Your task to perform on an android device: uninstall "Facebook Messenger" Image 0: 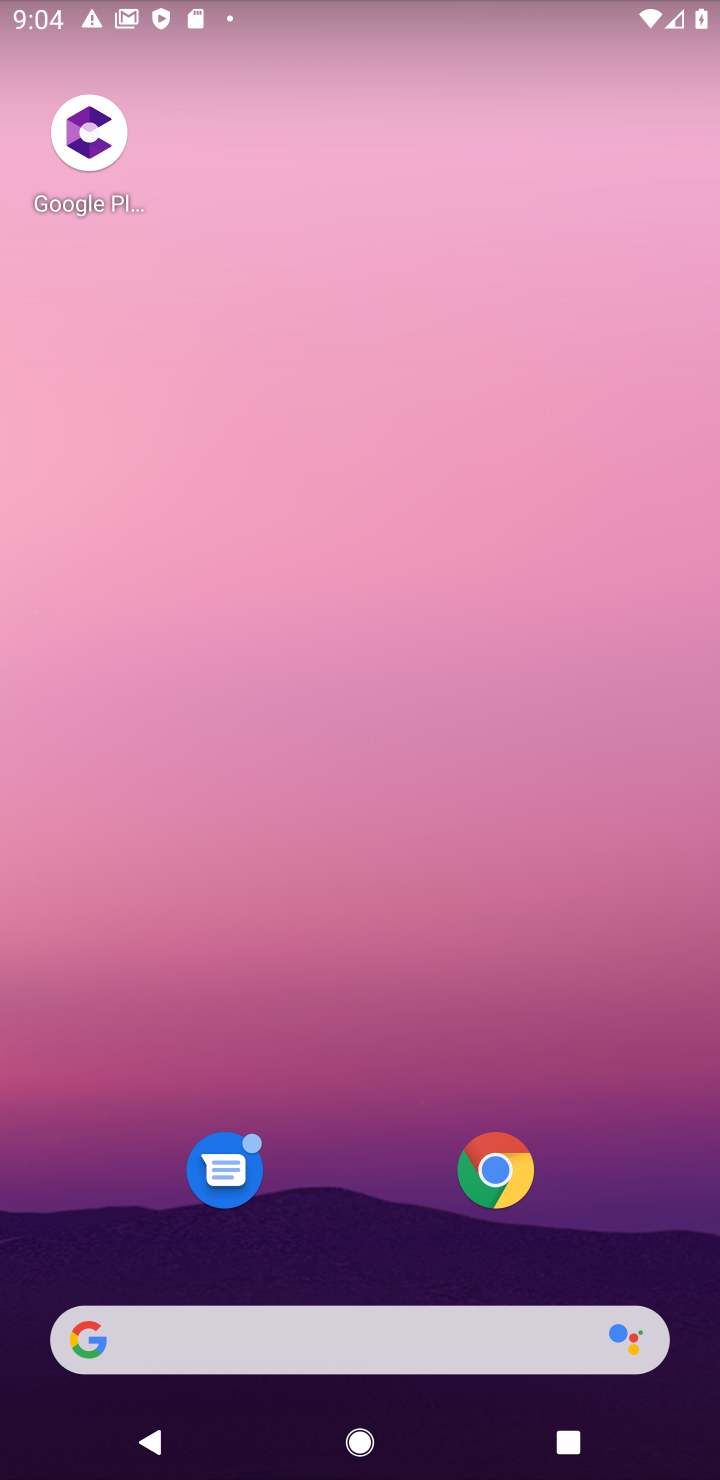
Step 0: drag from (376, 1243) to (451, 165)
Your task to perform on an android device: uninstall "Facebook Messenger" Image 1: 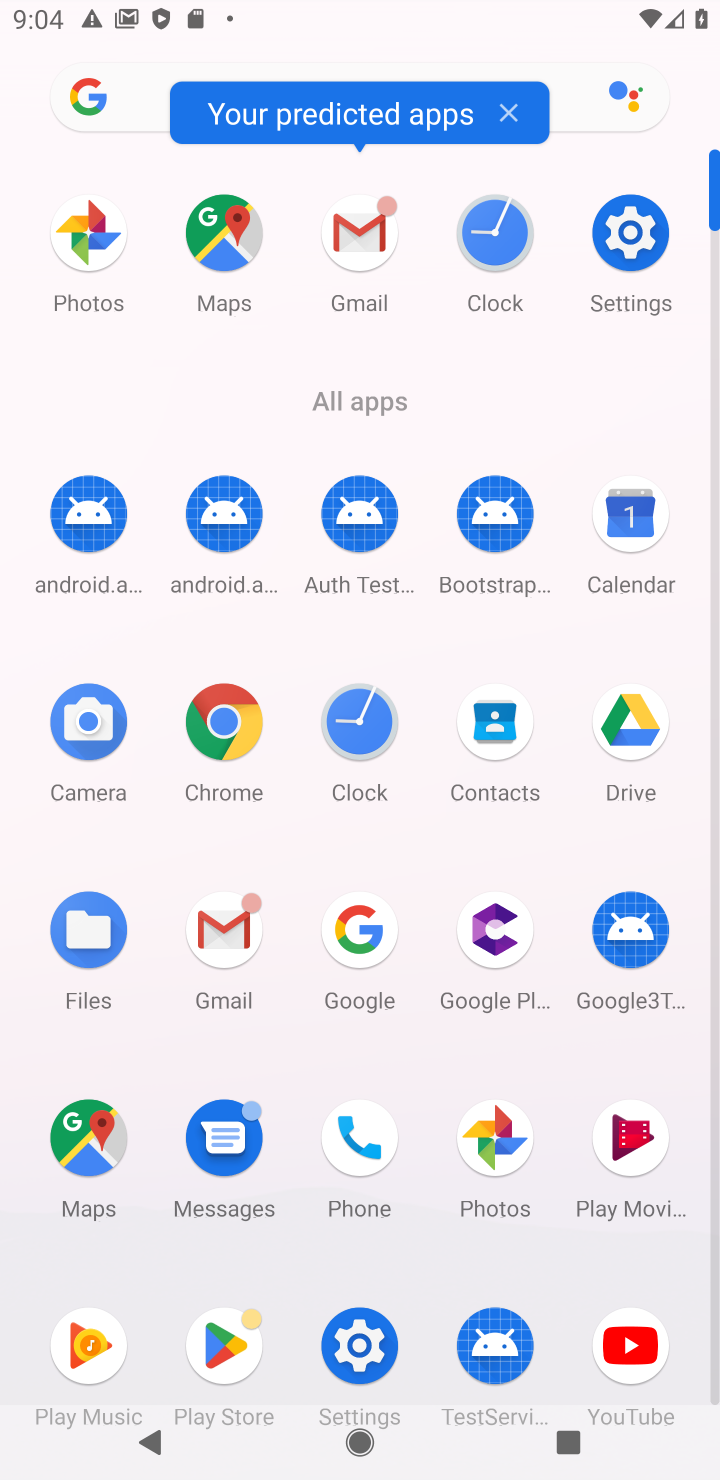
Step 1: drag from (218, 989) to (128, 335)
Your task to perform on an android device: uninstall "Facebook Messenger" Image 2: 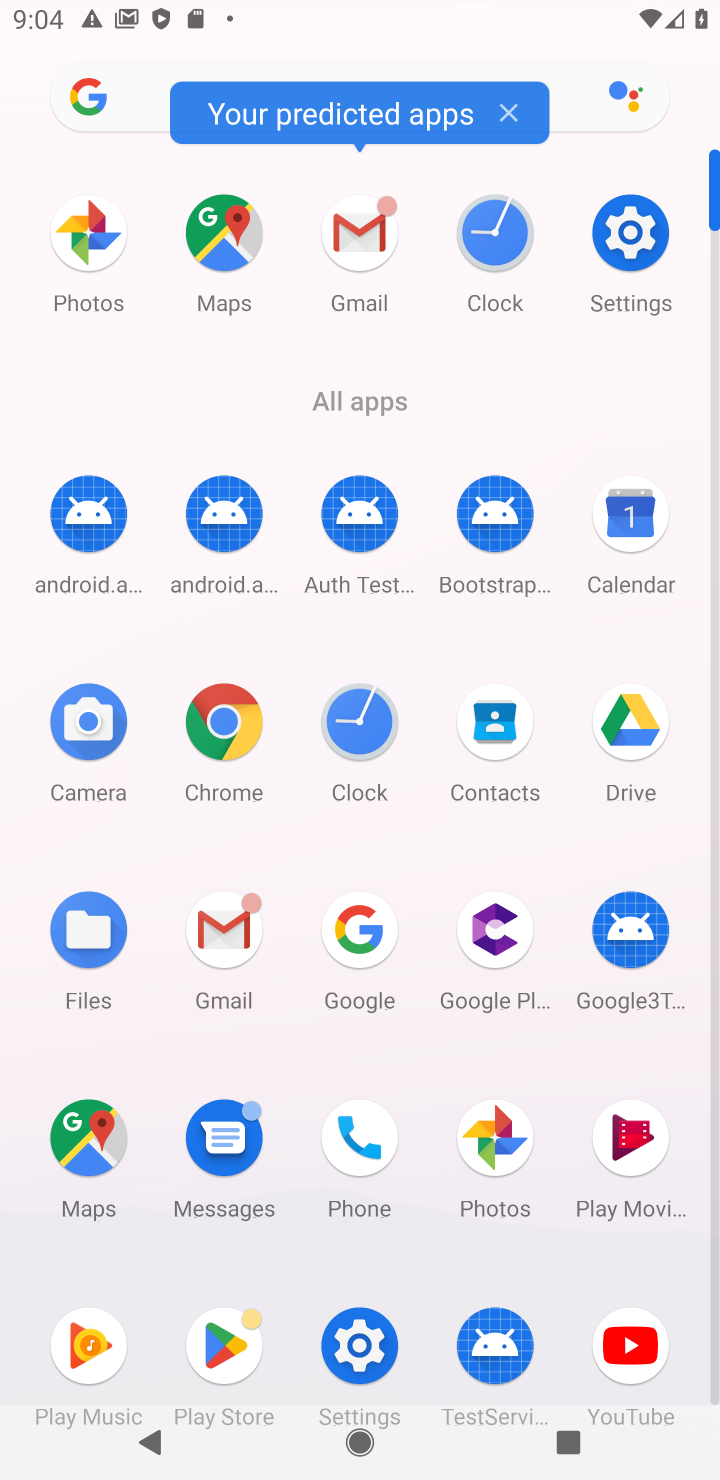
Step 2: drag from (275, 285) to (275, 138)
Your task to perform on an android device: uninstall "Facebook Messenger" Image 3: 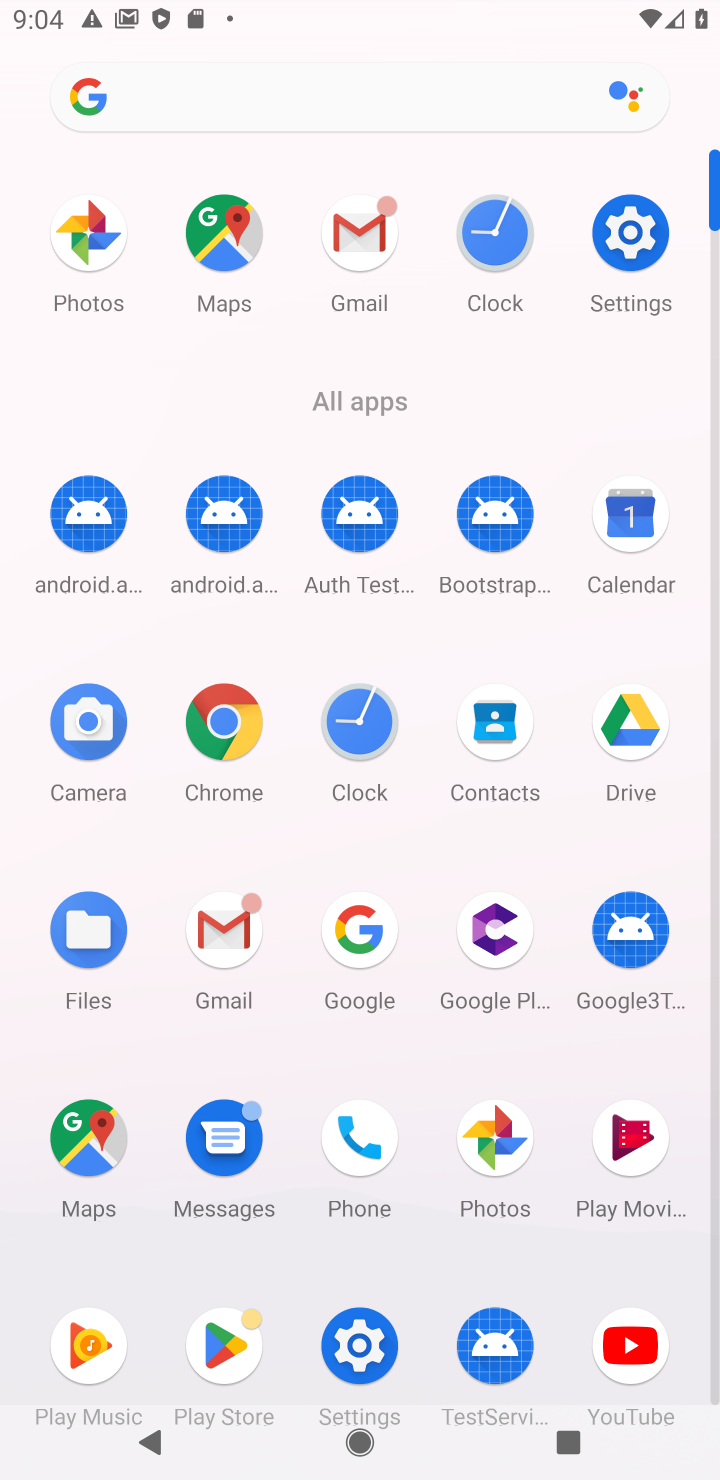
Step 3: click (226, 1337)
Your task to perform on an android device: uninstall "Facebook Messenger" Image 4: 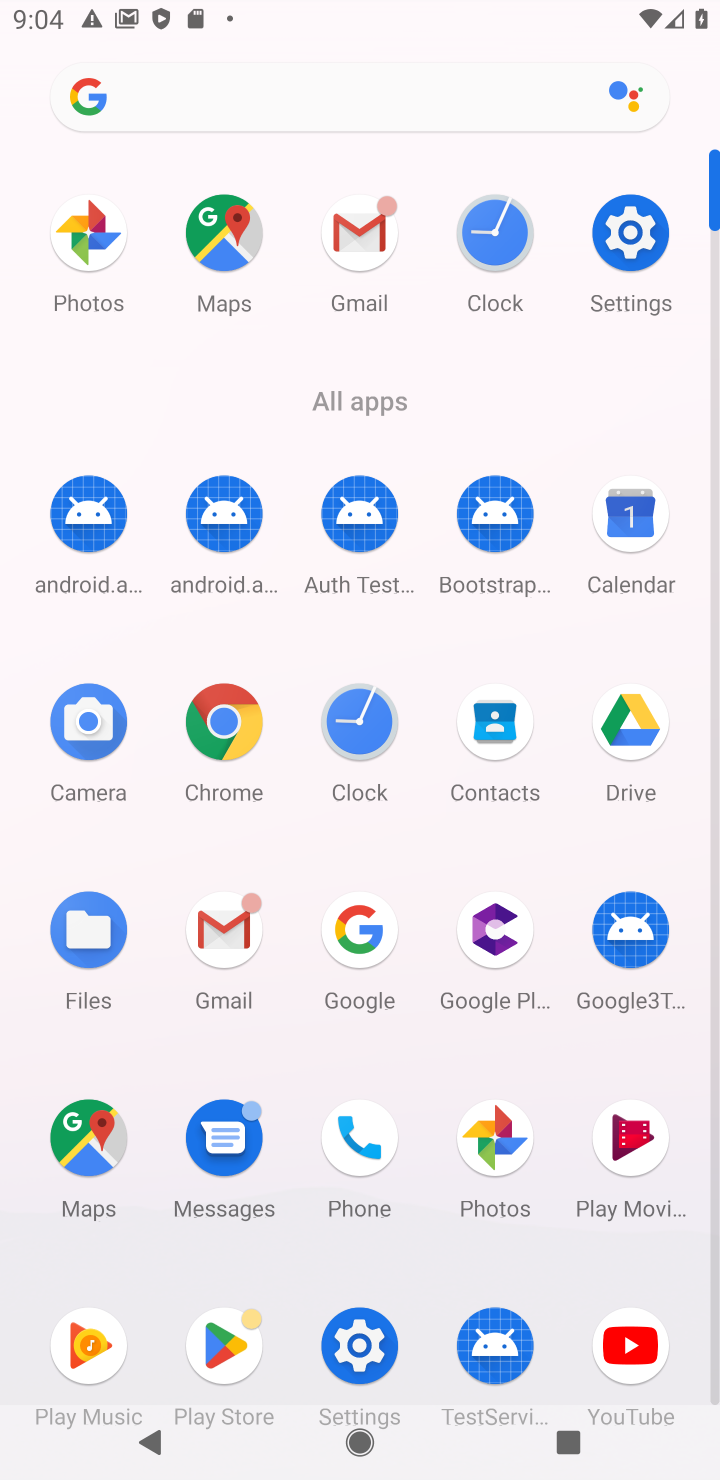
Step 4: click (228, 1343)
Your task to perform on an android device: uninstall "Facebook Messenger" Image 5: 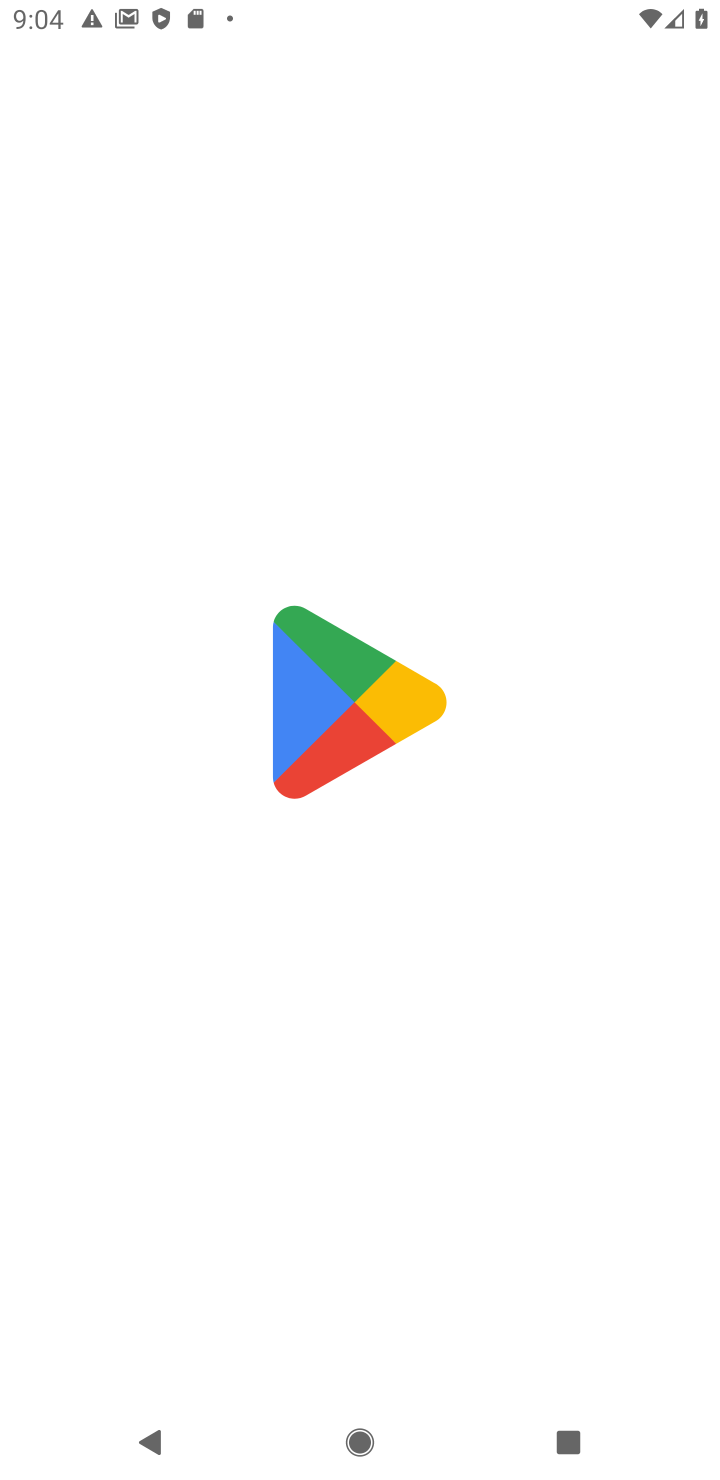
Step 5: click (235, 1342)
Your task to perform on an android device: uninstall "Facebook Messenger" Image 6: 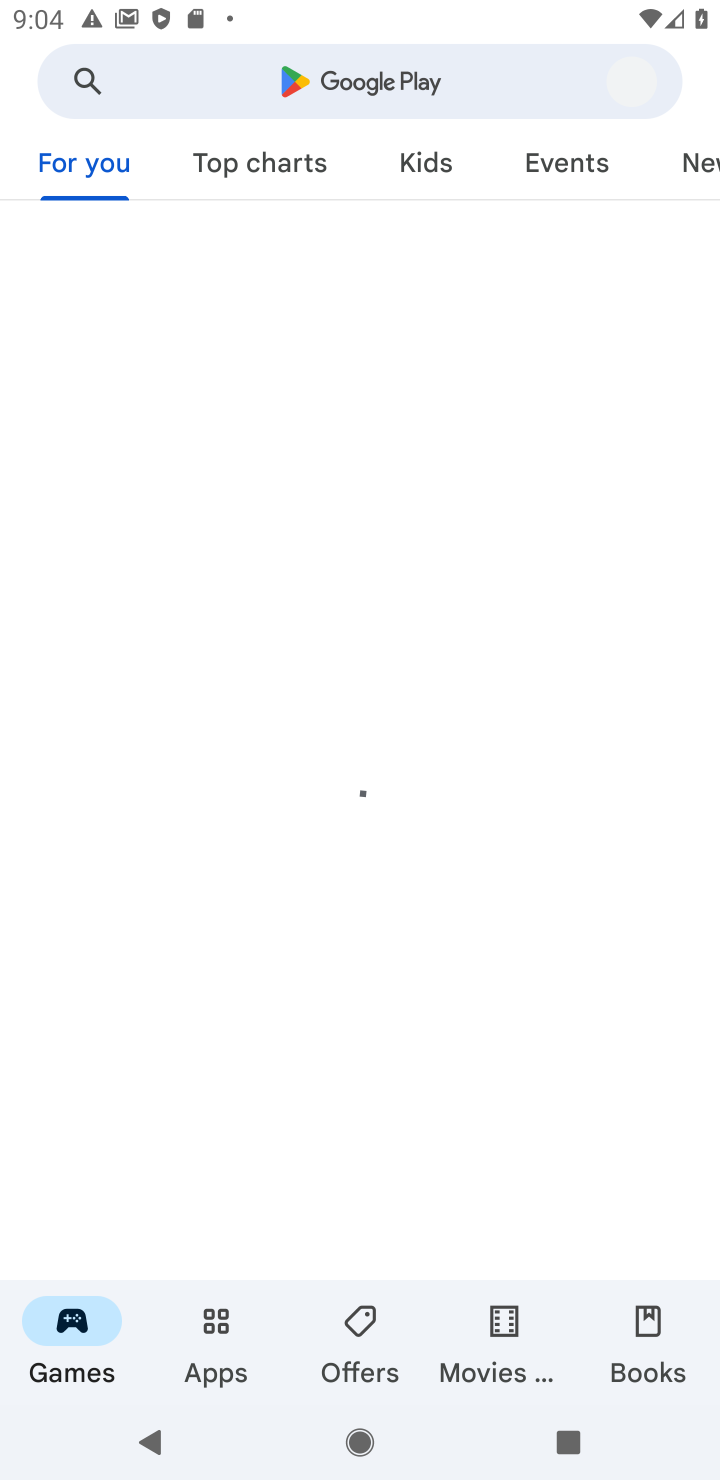
Step 6: click (341, 64)
Your task to perform on an android device: uninstall "Facebook Messenger" Image 7: 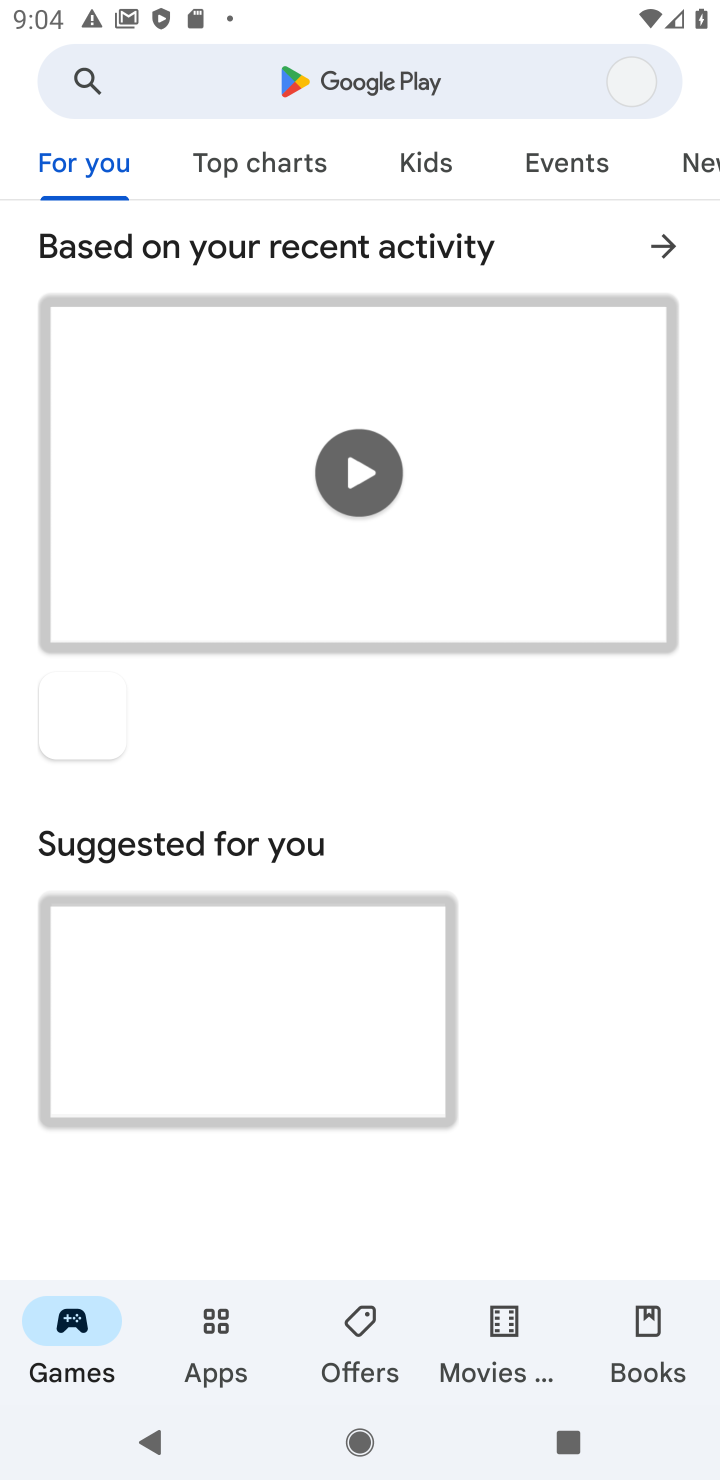
Step 7: click (345, 70)
Your task to perform on an android device: uninstall "Facebook Messenger" Image 8: 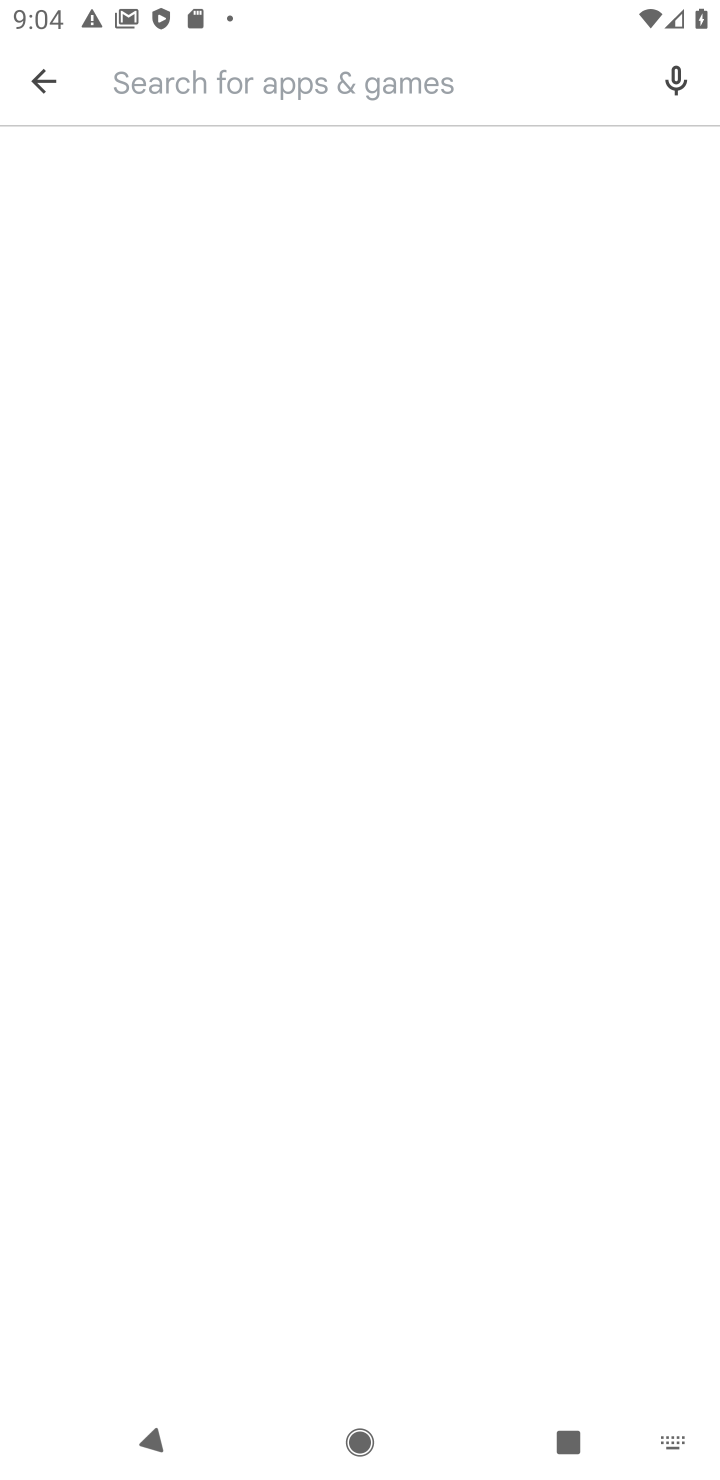
Step 8: click (241, 64)
Your task to perform on an android device: uninstall "Facebook Messenger" Image 9: 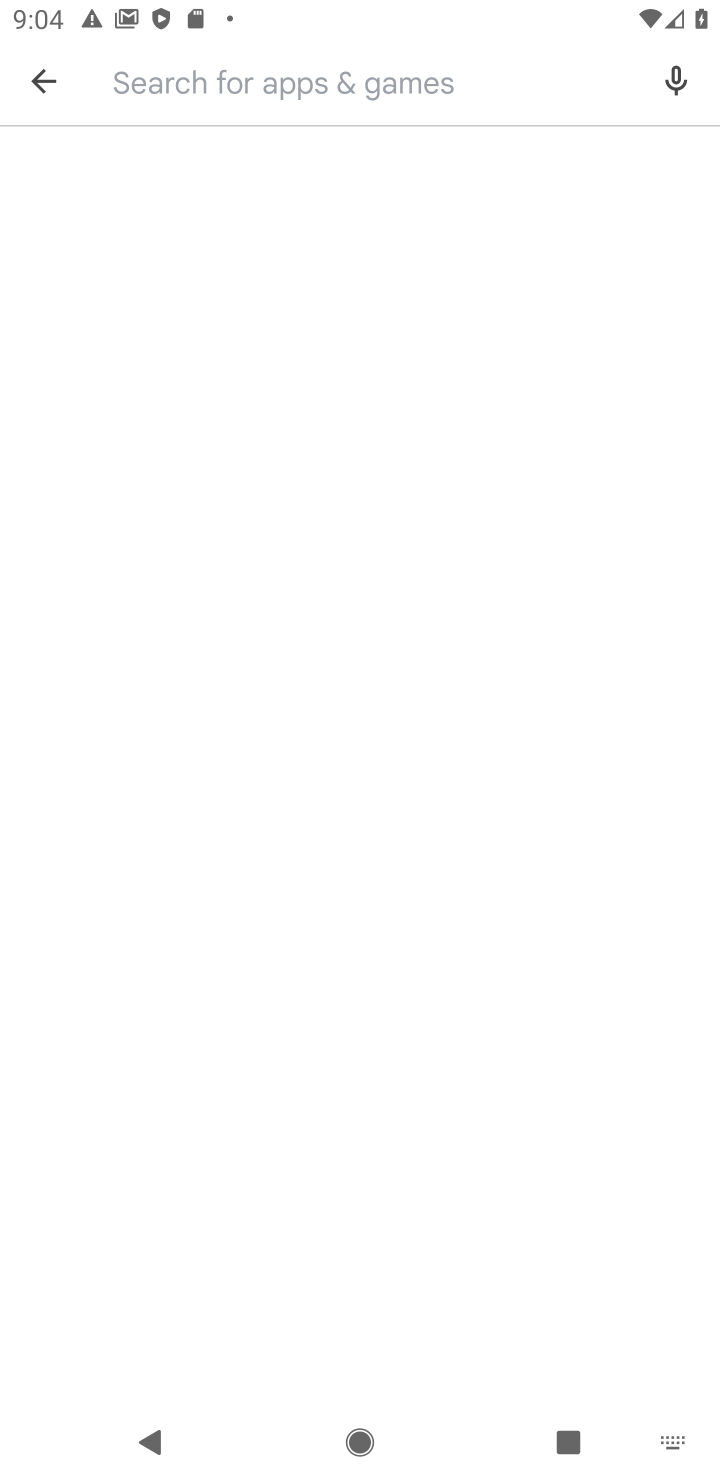
Step 9: click (241, 64)
Your task to perform on an android device: uninstall "Facebook Messenger" Image 10: 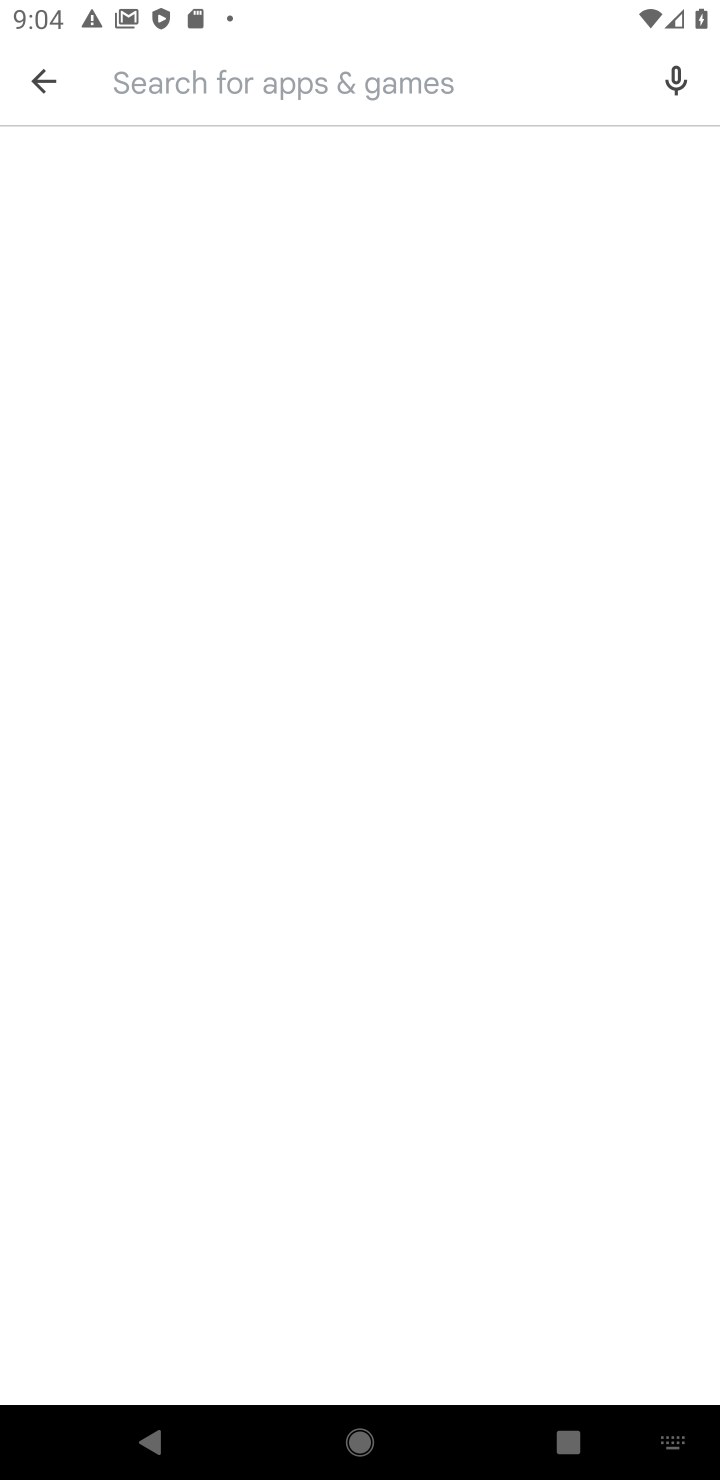
Step 10: type "facebook messenger"
Your task to perform on an android device: uninstall "Facebook Messenger" Image 11: 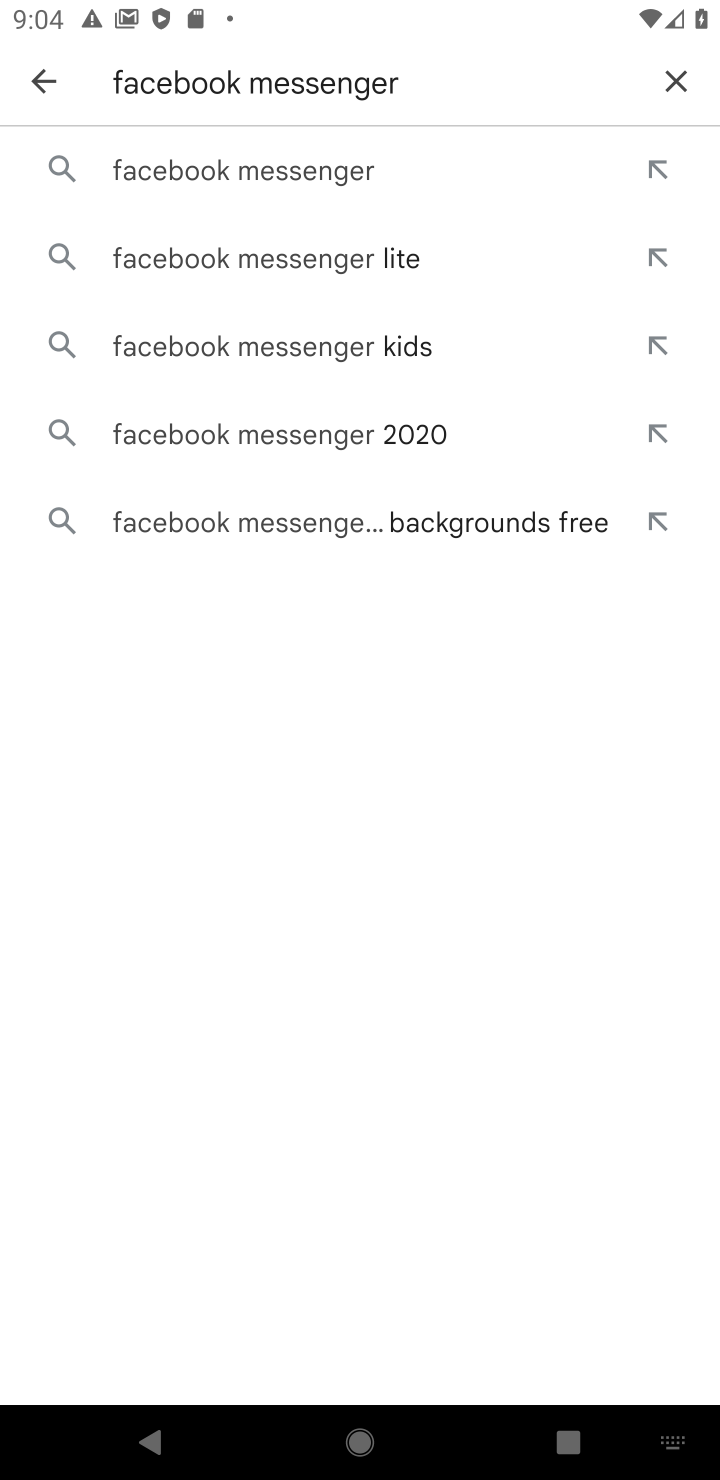
Step 11: click (240, 184)
Your task to perform on an android device: uninstall "Facebook Messenger" Image 12: 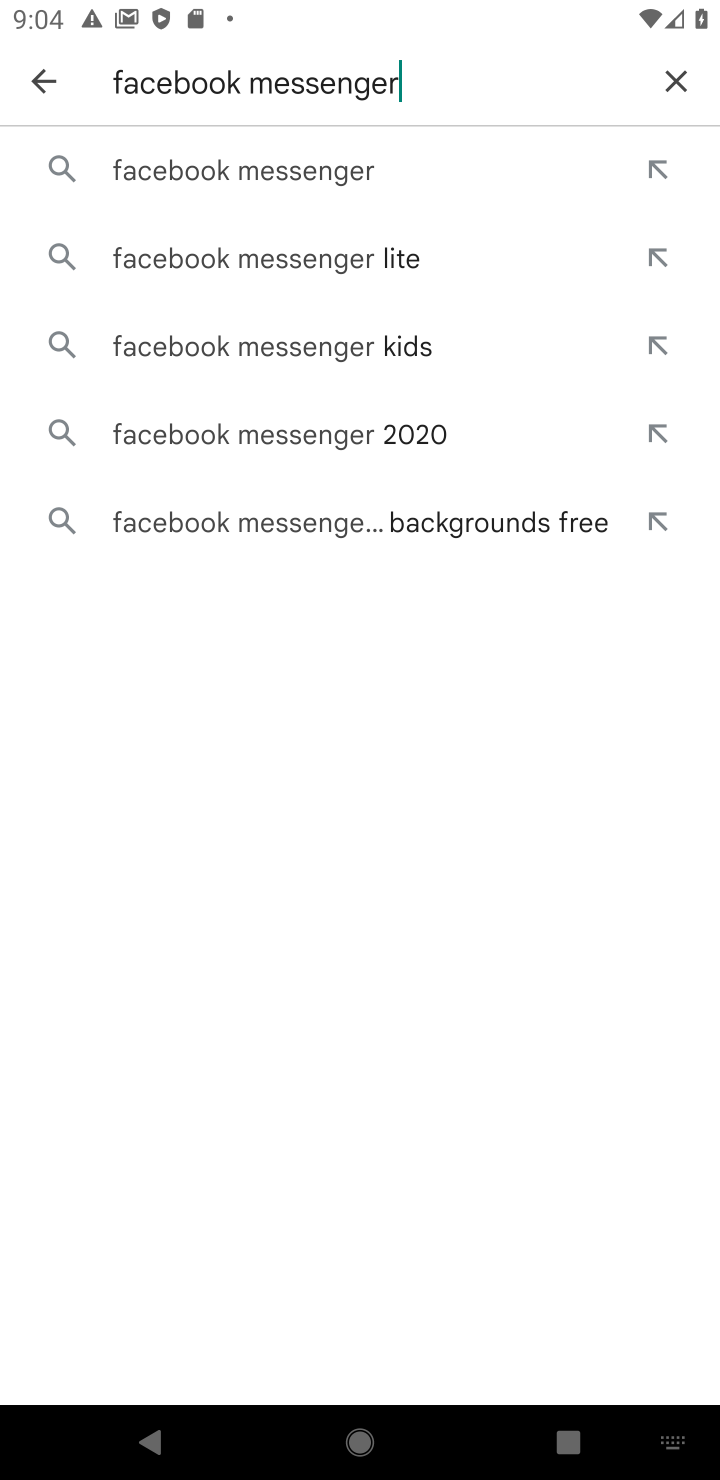
Step 12: click (271, 171)
Your task to perform on an android device: uninstall "Facebook Messenger" Image 13: 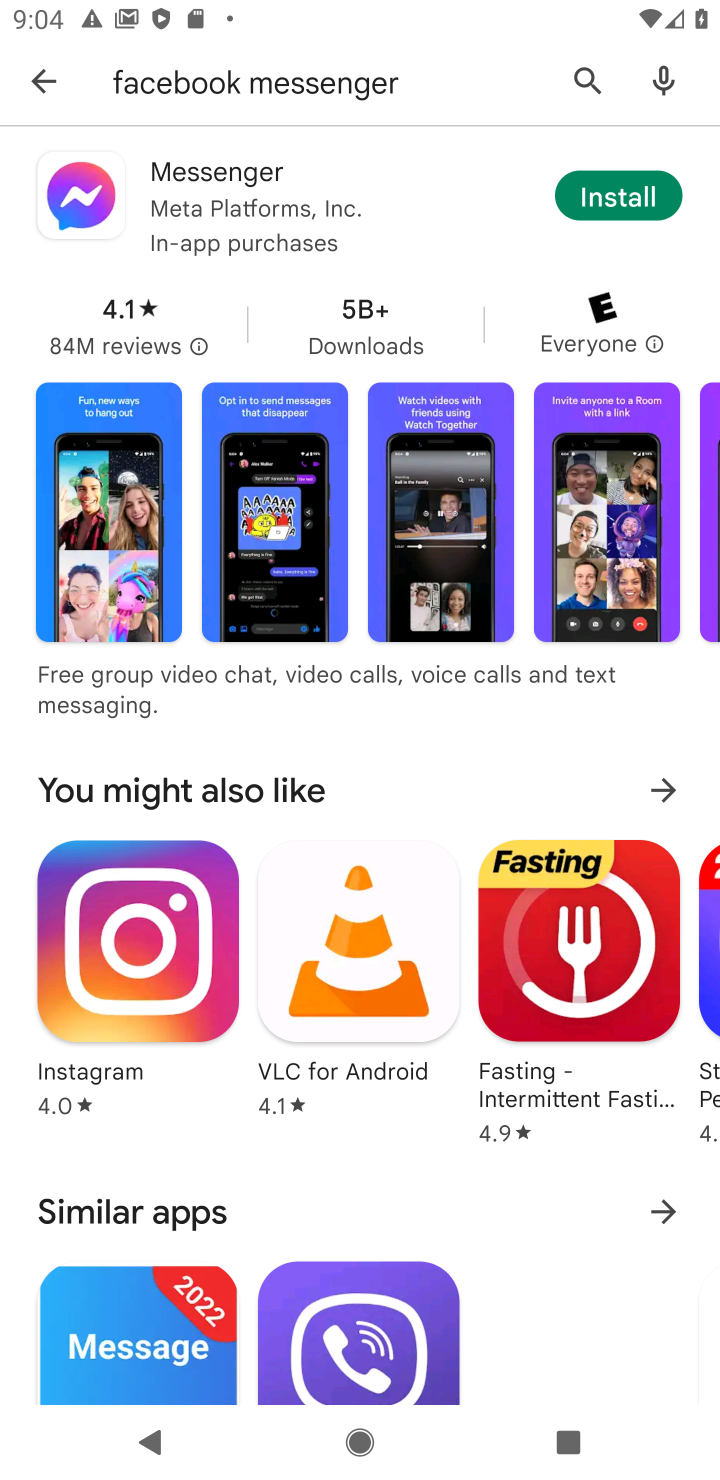
Step 13: click (587, 202)
Your task to perform on an android device: uninstall "Facebook Messenger" Image 14: 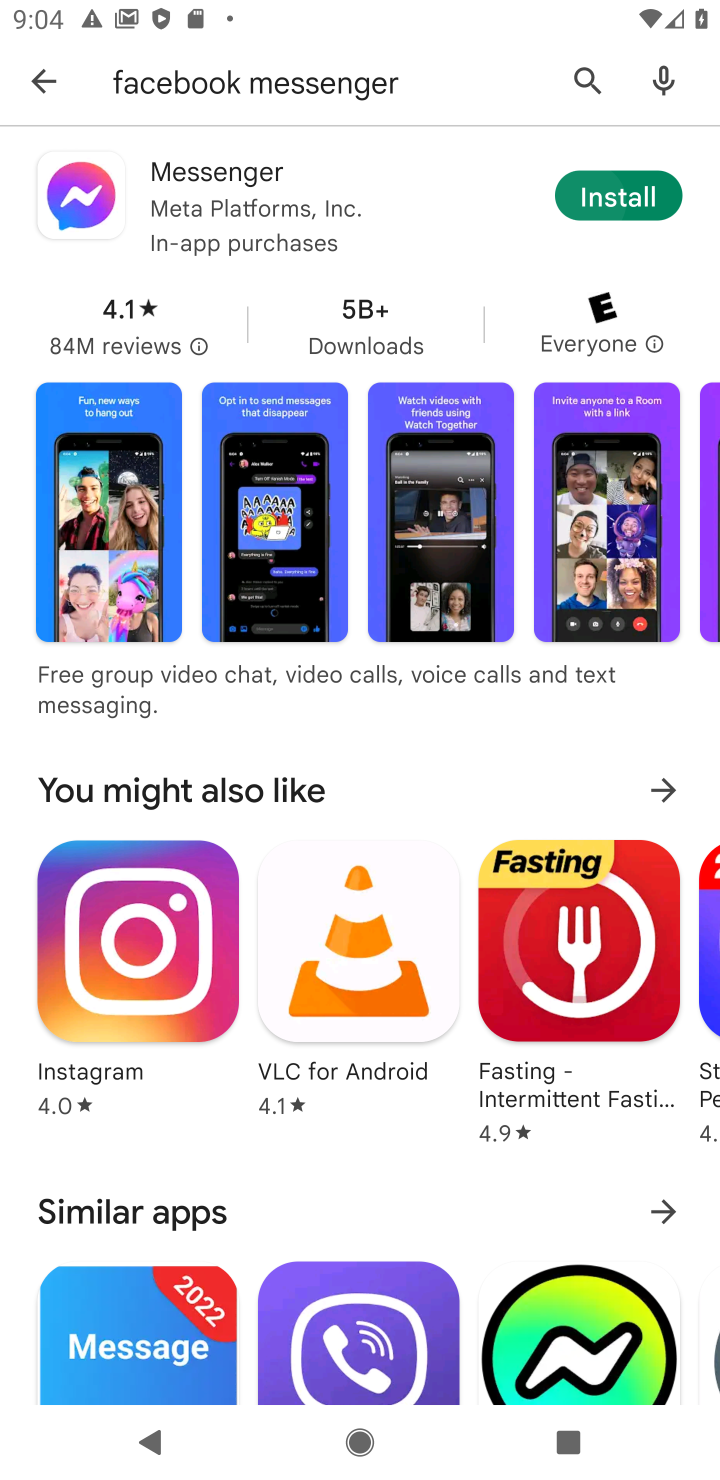
Step 14: click (627, 205)
Your task to perform on an android device: uninstall "Facebook Messenger" Image 15: 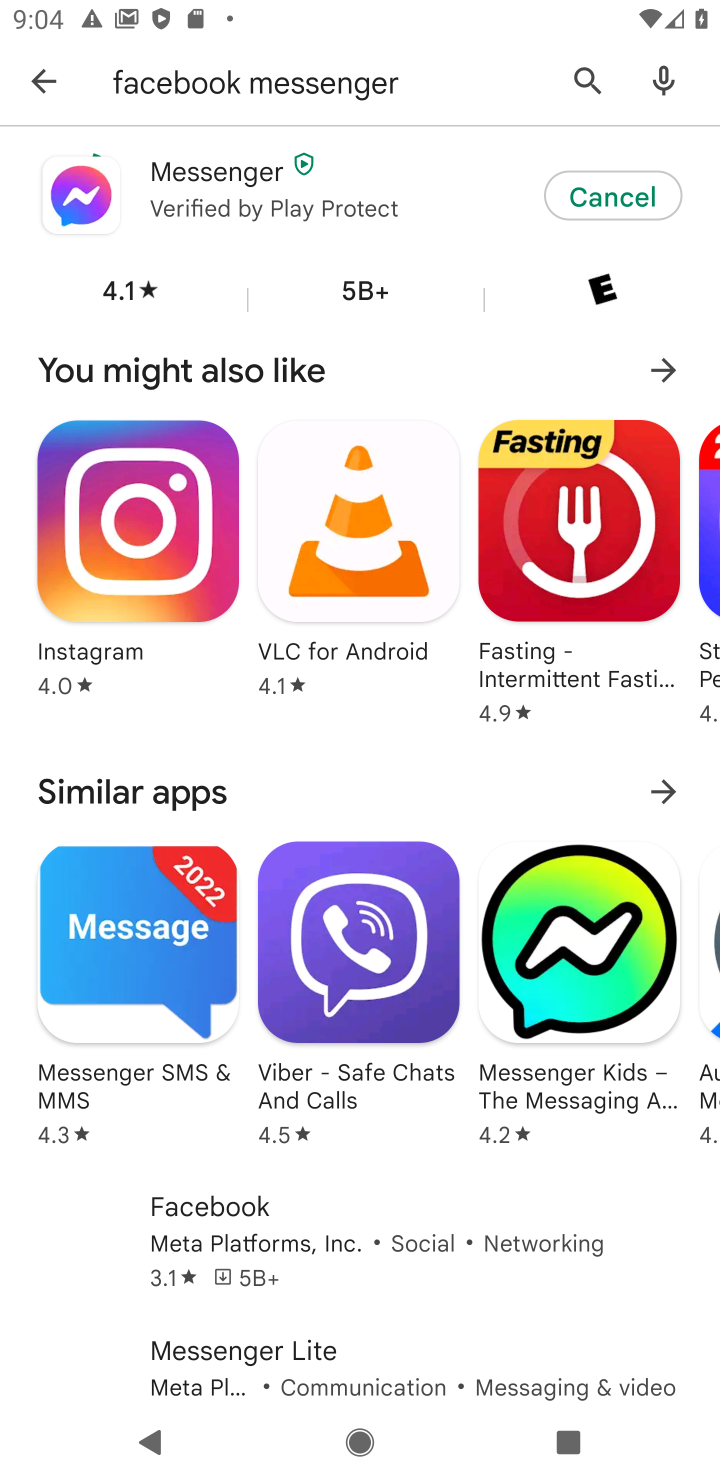
Step 15: click (629, 203)
Your task to perform on an android device: uninstall "Facebook Messenger" Image 16: 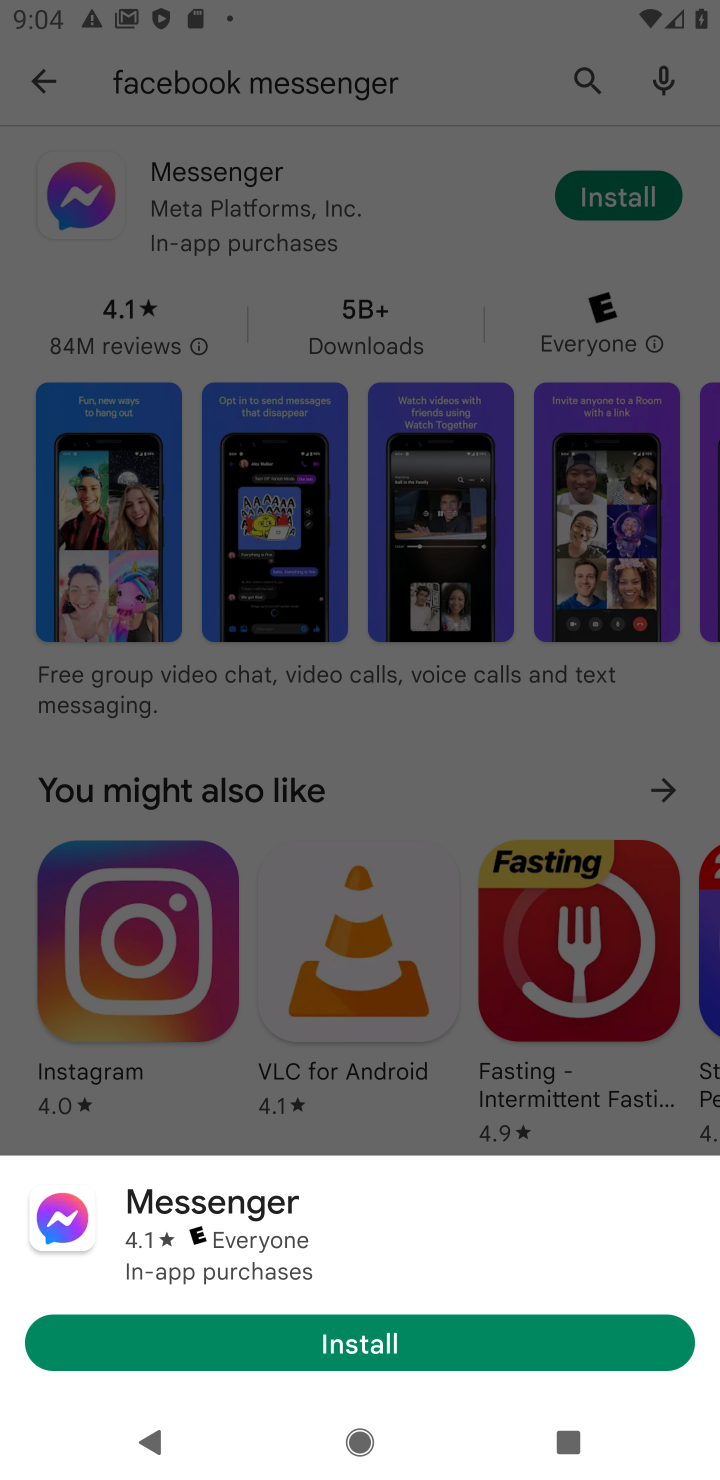
Step 16: click (369, 1327)
Your task to perform on an android device: uninstall "Facebook Messenger" Image 17: 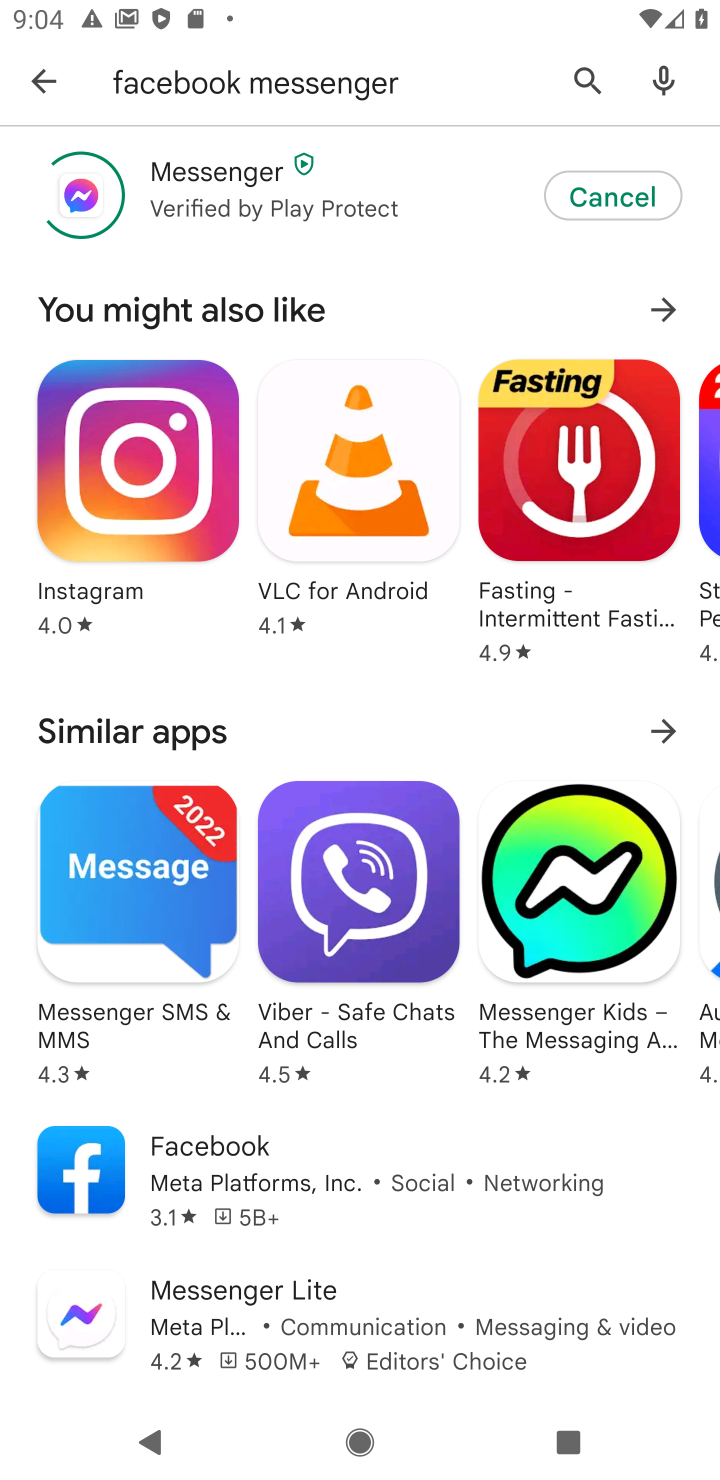
Step 17: click (626, 181)
Your task to perform on an android device: uninstall "Facebook Messenger" Image 18: 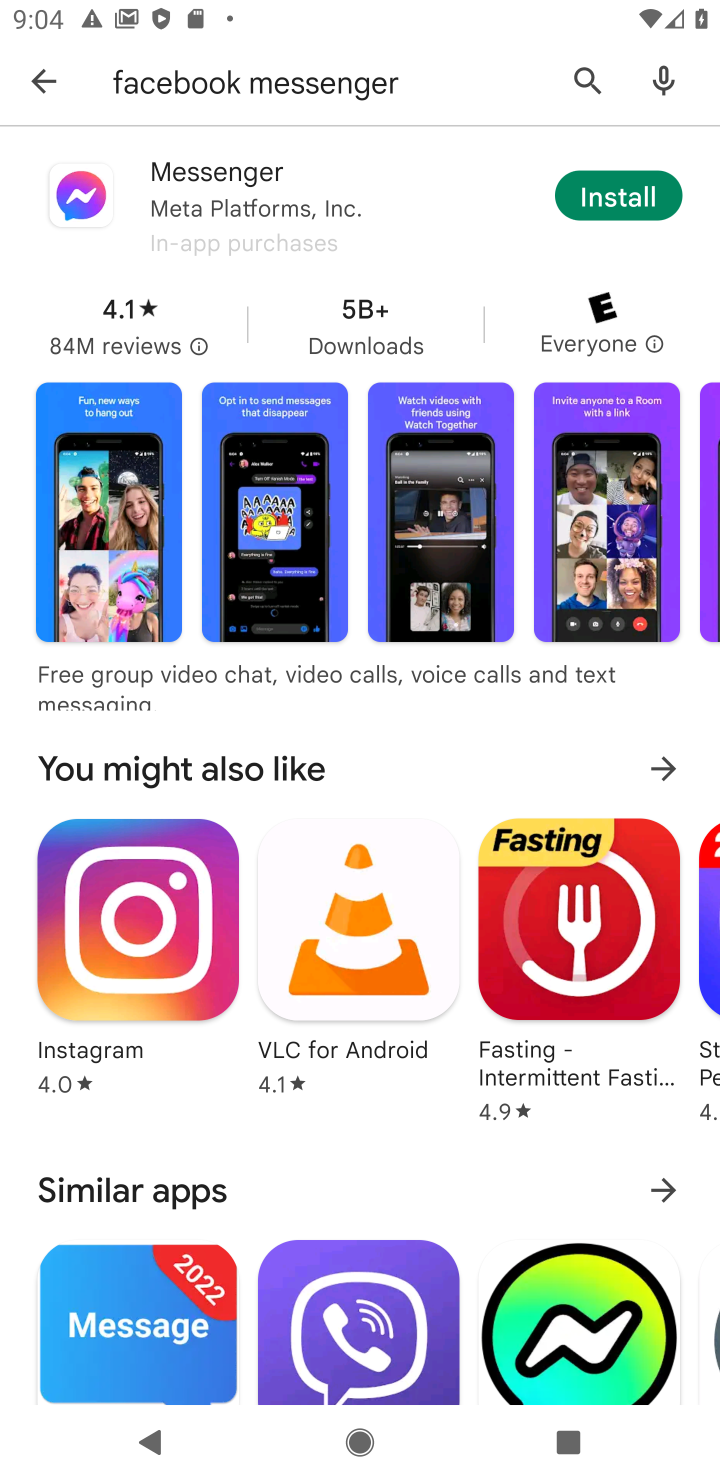
Step 18: click (633, 192)
Your task to perform on an android device: uninstall "Facebook Messenger" Image 19: 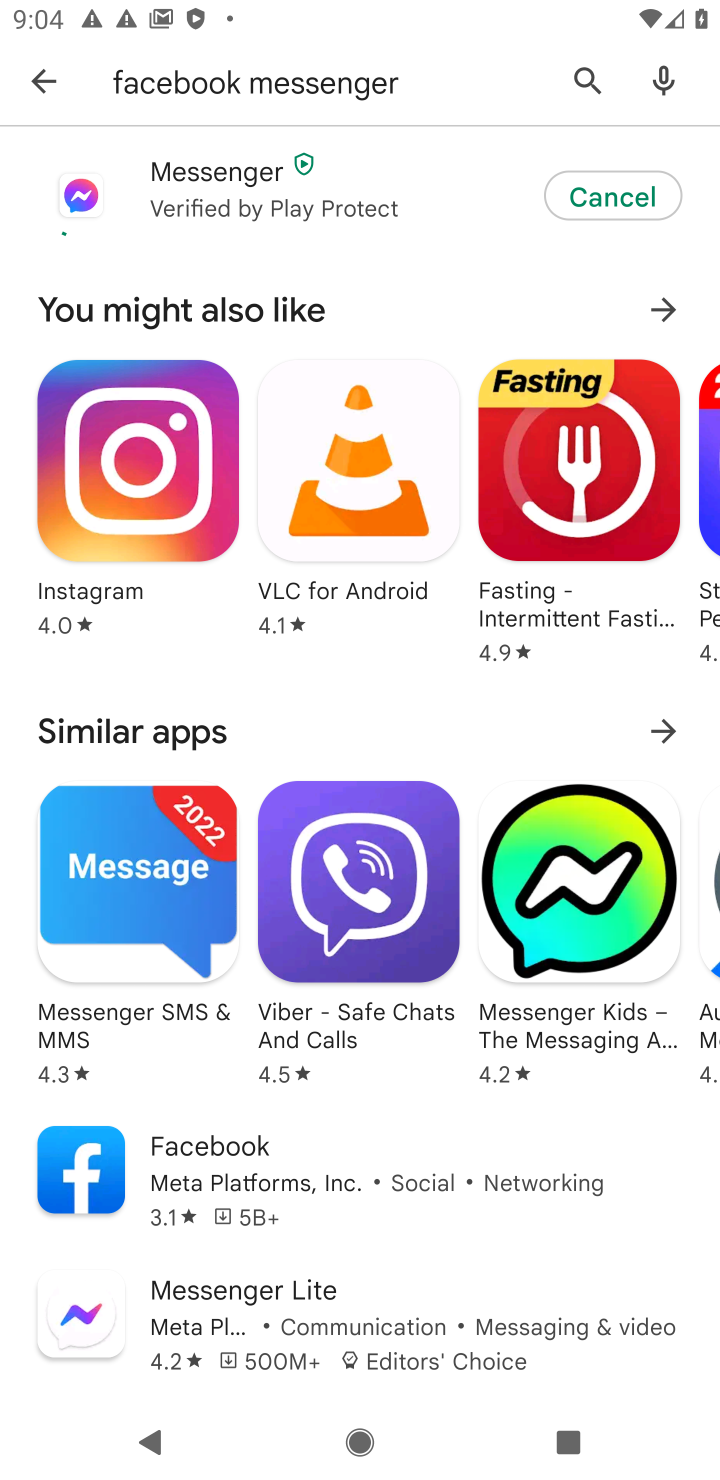
Step 19: click (628, 202)
Your task to perform on an android device: uninstall "Facebook Messenger" Image 20: 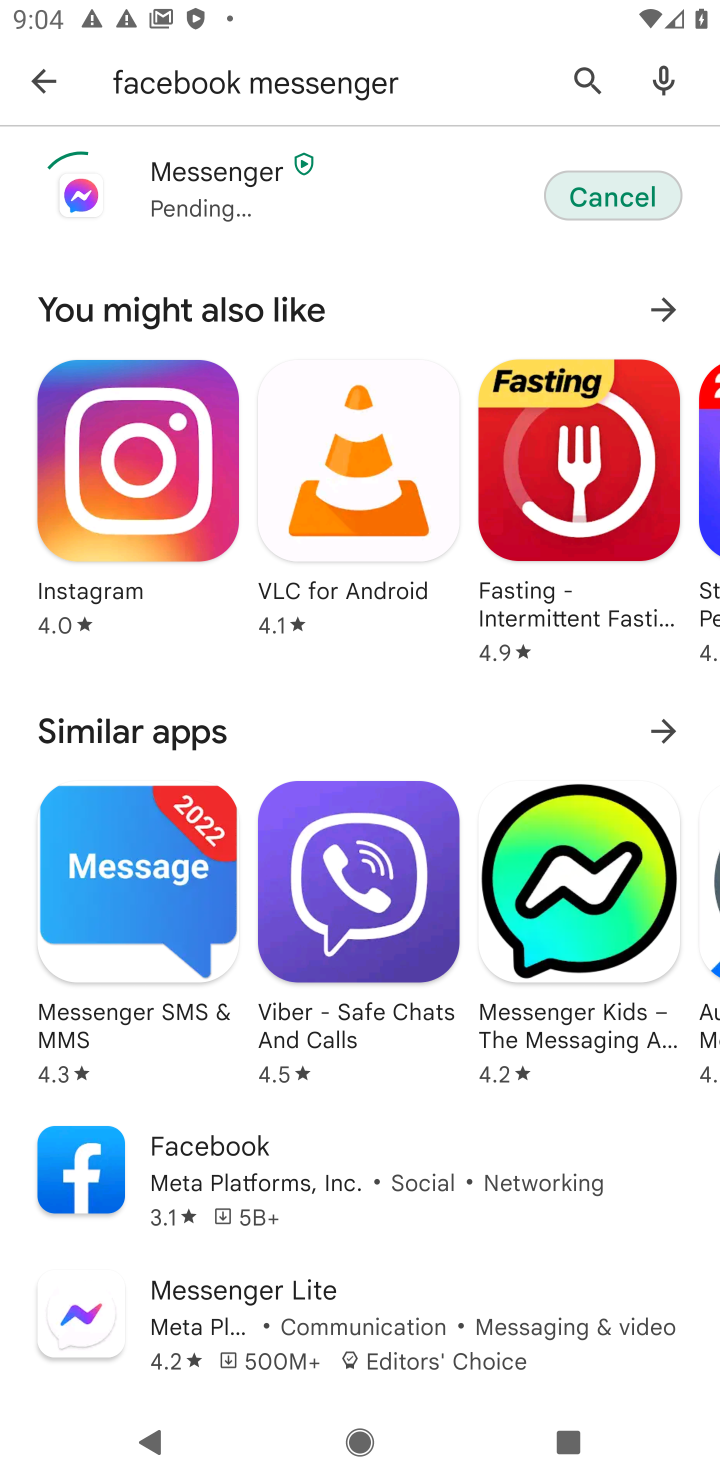
Step 20: task complete